Your task to perform on an android device: toggle javascript in the chrome app Image 0: 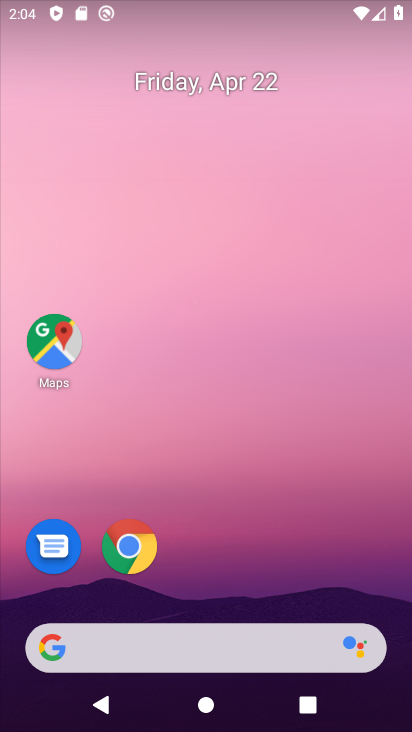
Step 0: click (299, 498)
Your task to perform on an android device: toggle javascript in the chrome app Image 1: 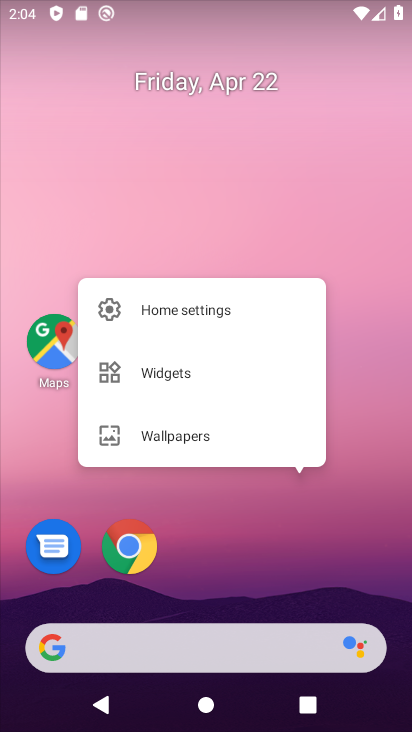
Step 1: click (371, 547)
Your task to perform on an android device: toggle javascript in the chrome app Image 2: 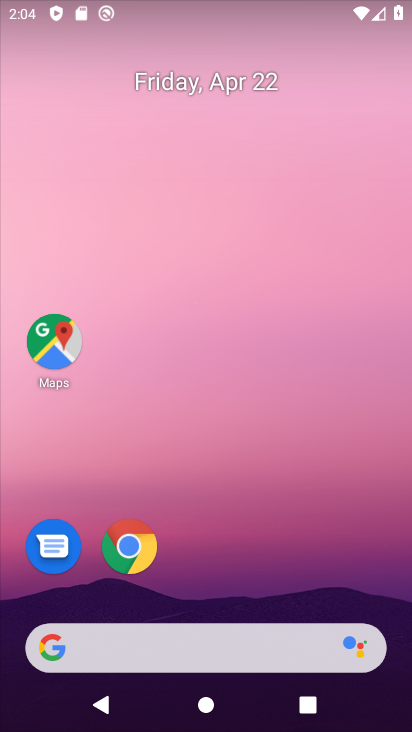
Step 2: drag from (218, 601) to (143, 86)
Your task to perform on an android device: toggle javascript in the chrome app Image 3: 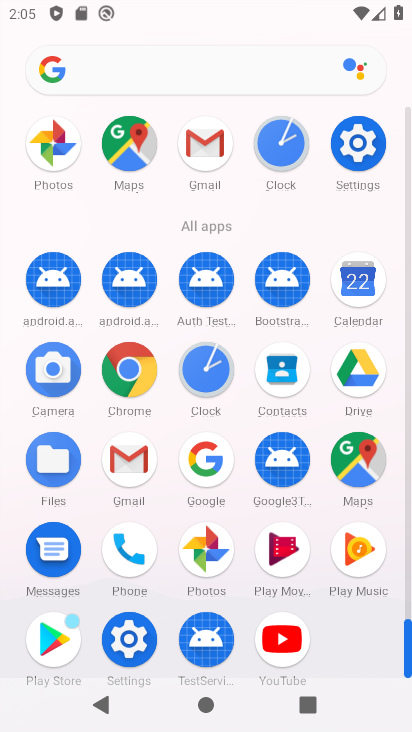
Step 3: click (121, 373)
Your task to perform on an android device: toggle javascript in the chrome app Image 4: 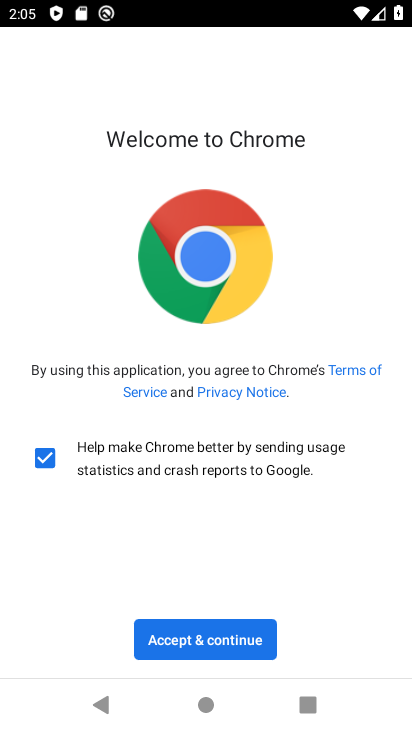
Step 4: click (214, 641)
Your task to perform on an android device: toggle javascript in the chrome app Image 5: 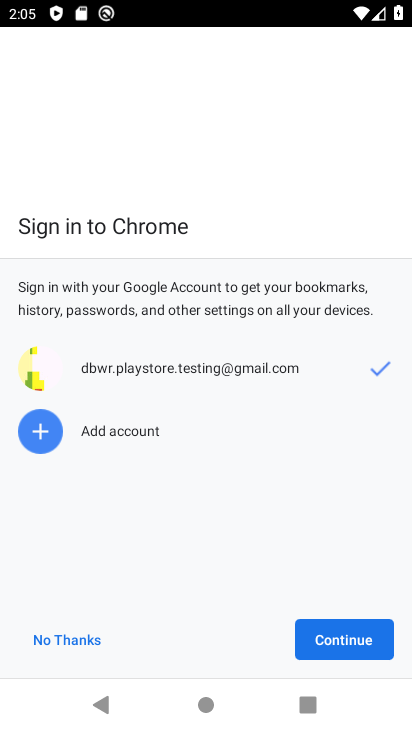
Step 5: click (347, 650)
Your task to perform on an android device: toggle javascript in the chrome app Image 6: 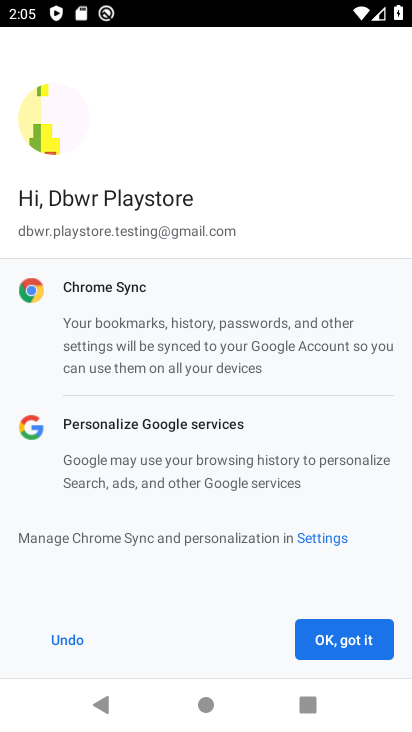
Step 6: click (347, 650)
Your task to perform on an android device: toggle javascript in the chrome app Image 7: 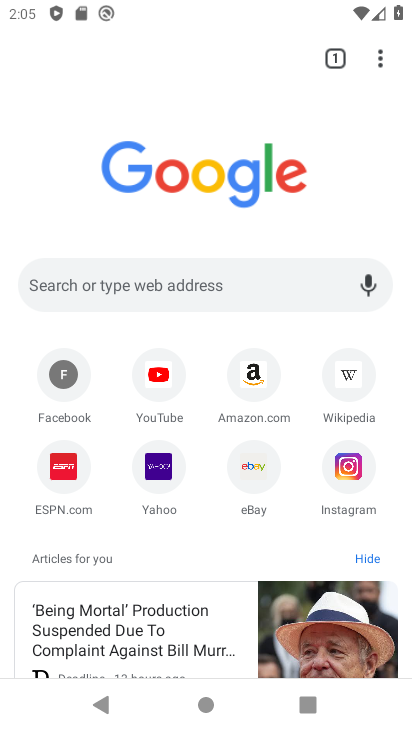
Step 7: click (377, 64)
Your task to perform on an android device: toggle javascript in the chrome app Image 8: 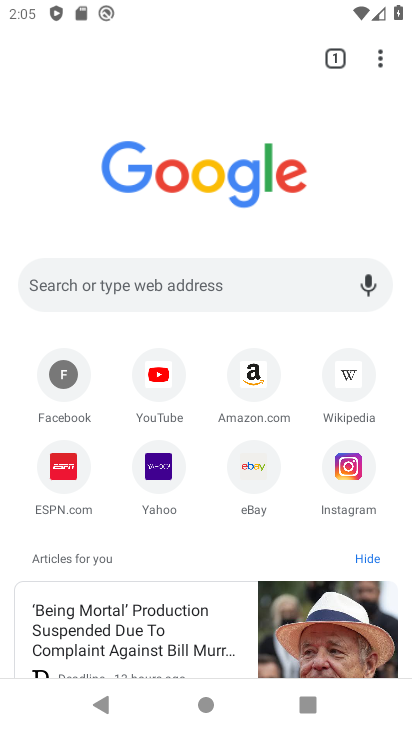
Step 8: click (378, 61)
Your task to perform on an android device: toggle javascript in the chrome app Image 9: 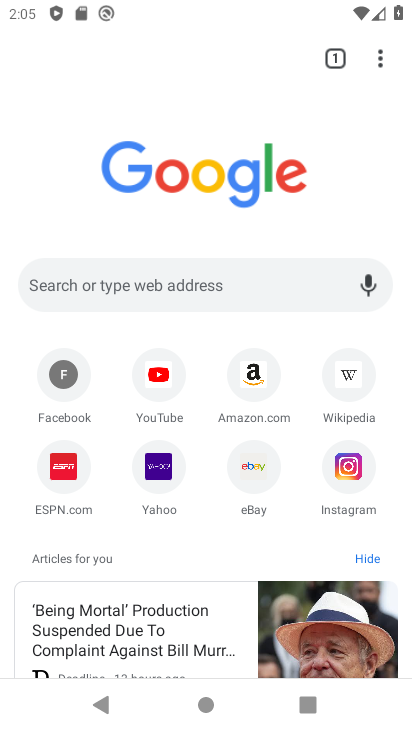
Step 9: drag from (380, 60) to (241, 332)
Your task to perform on an android device: toggle javascript in the chrome app Image 10: 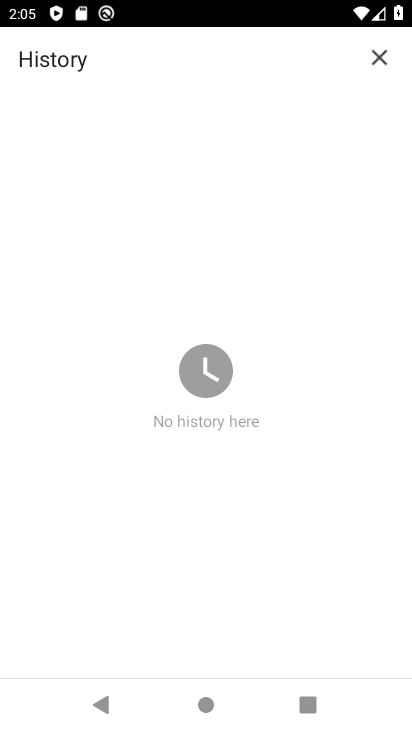
Step 10: click (380, 42)
Your task to perform on an android device: toggle javascript in the chrome app Image 11: 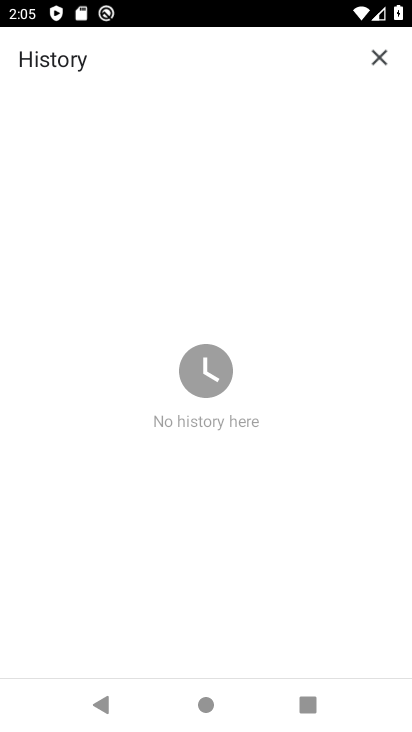
Step 11: click (381, 56)
Your task to perform on an android device: toggle javascript in the chrome app Image 12: 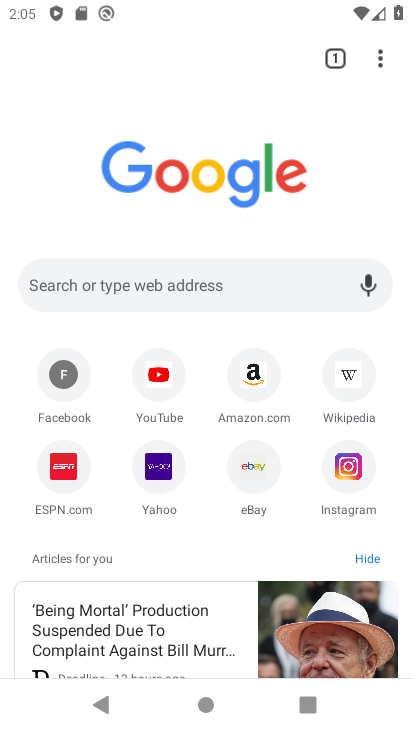
Step 12: click (378, 57)
Your task to perform on an android device: toggle javascript in the chrome app Image 13: 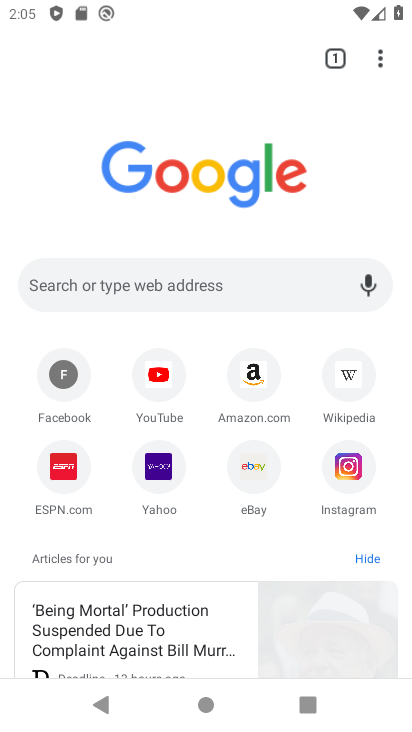
Step 13: drag from (378, 58) to (215, 504)
Your task to perform on an android device: toggle javascript in the chrome app Image 14: 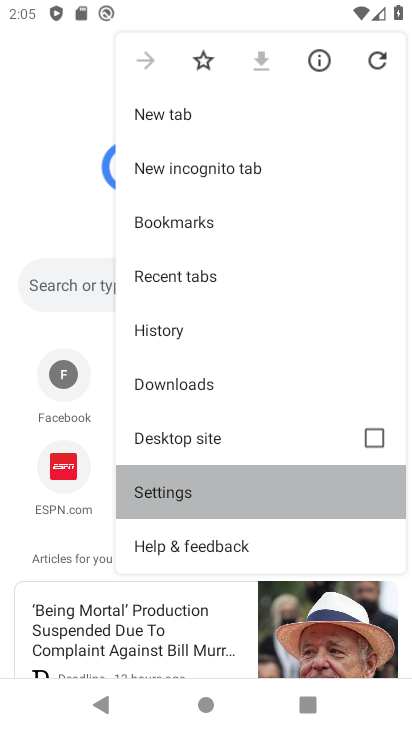
Step 14: click (215, 504)
Your task to perform on an android device: toggle javascript in the chrome app Image 15: 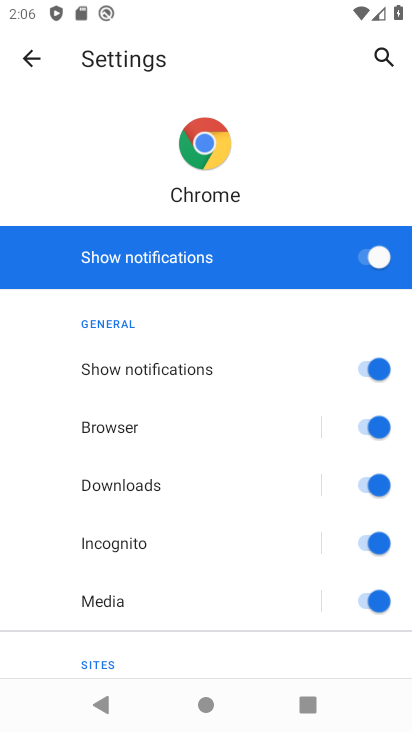
Step 15: click (24, 57)
Your task to perform on an android device: toggle javascript in the chrome app Image 16: 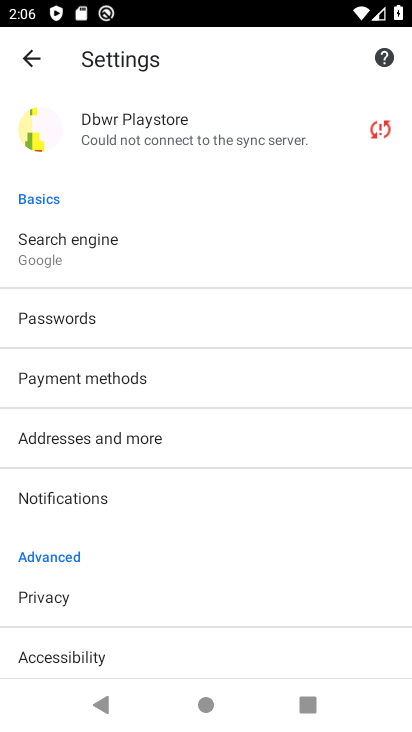
Step 16: drag from (156, 611) to (158, 386)
Your task to perform on an android device: toggle javascript in the chrome app Image 17: 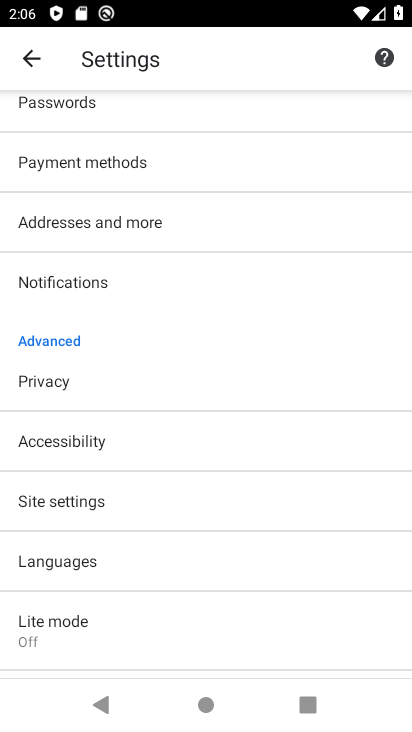
Step 17: drag from (121, 574) to (164, 311)
Your task to perform on an android device: toggle javascript in the chrome app Image 18: 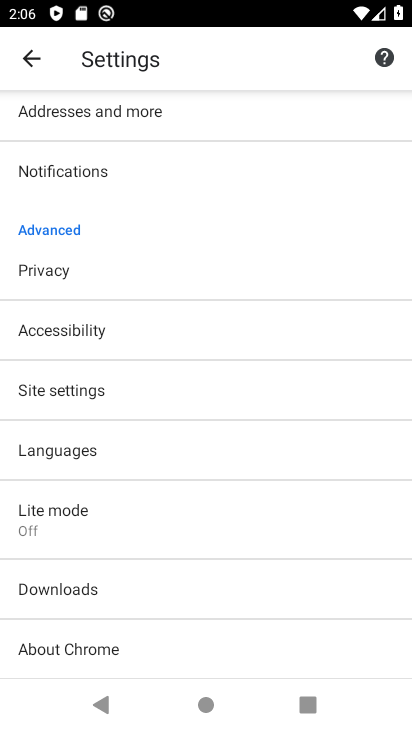
Step 18: drag from (112, 310) to (133, 576)
Your task to perform on an android device: toggle javascript in the chrome app Image 19: 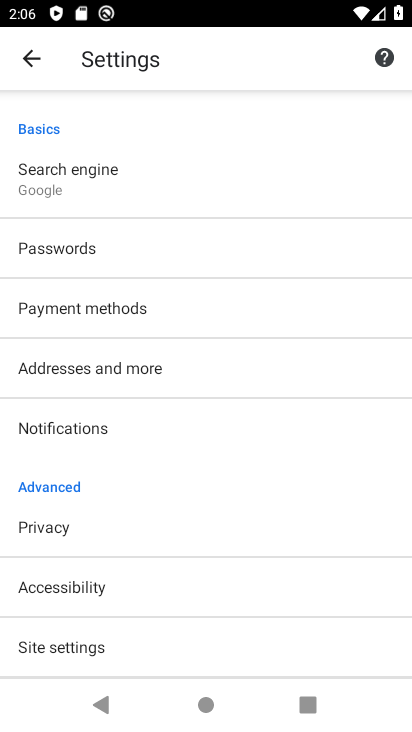
Step 19: drag from (137, 603) to (197, 284)
Your task to perform on an android device: toggle javascript in the chrome app Image 20: 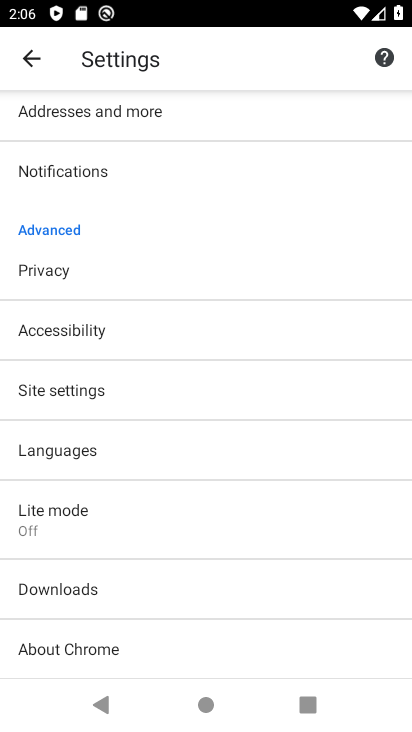
Step 20: drag from (180, 508) to (199, 311)
Your task to perform on an android device: toggle javascript in the chrome app Image 21: 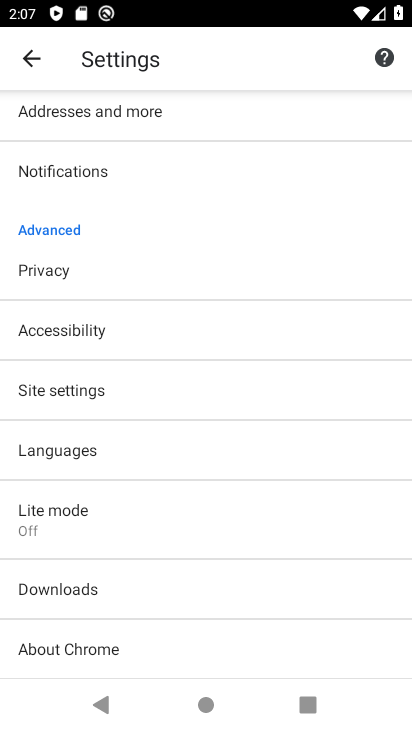
Step 21: drag from (97, 569) to (123, 172)
Your task to perform on an android device: toggle javascript in the chrome app Image 22: 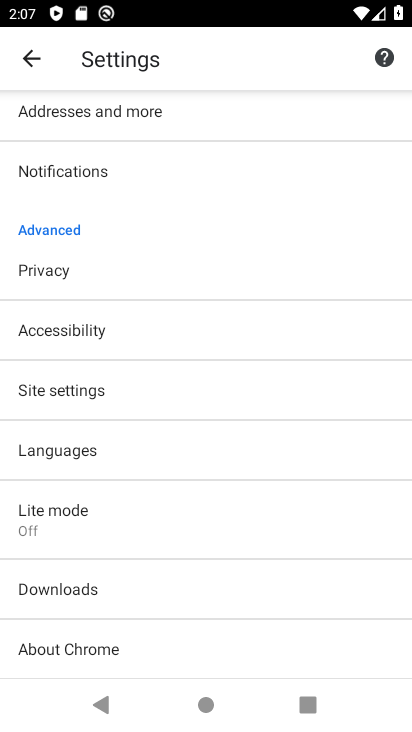
Step 22: click (59, 276)
Your task to perform on an android device: toggle javascript in the chrome app Image 23: 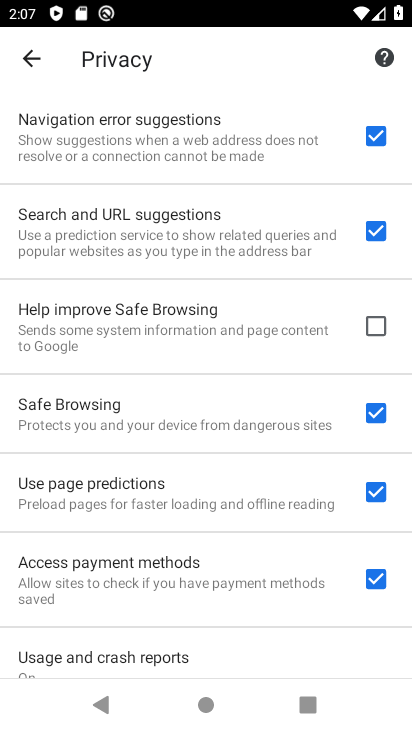
Step 23: drag from (120, 483) to (181, 205)
Your task to perform on an android device: toggle javascript in the chrome app Image 24: 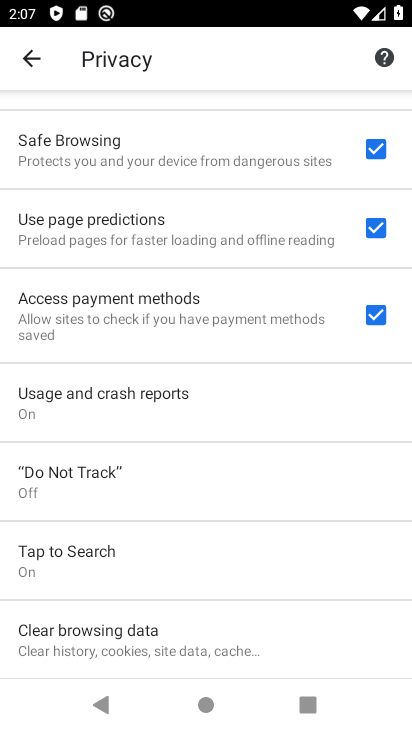
Step 24: drag from (161, 610) to (182, 153)
Your task to perform on an android device: toggle javascript in the chrome app Image 25: 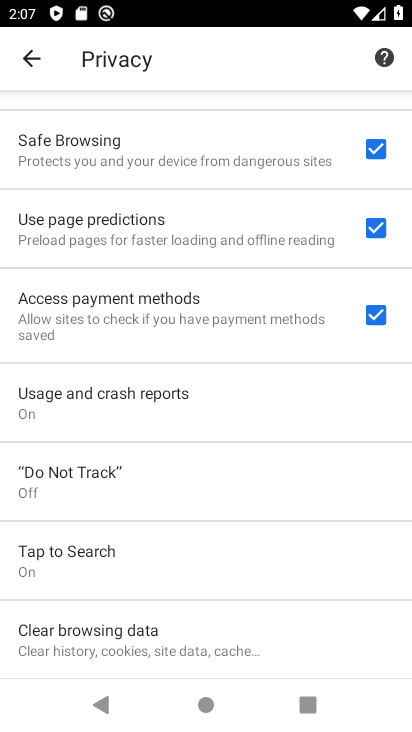
Step 25: click (182, 153)
Your task to perform on an android device: toggle javascript in the chrome app Image 26: 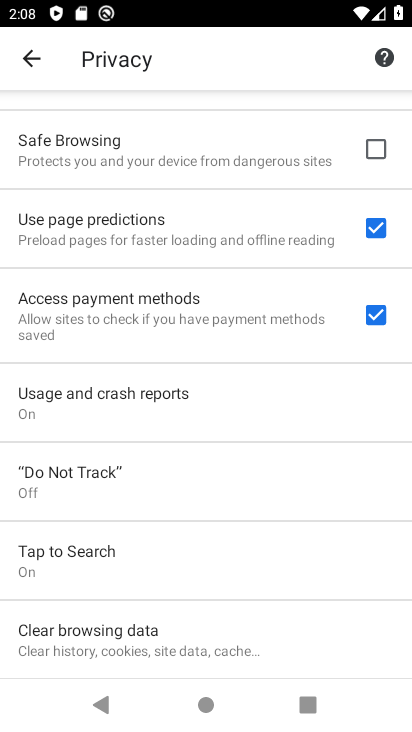
Step 26: drag from (172, 608) to (137, 308)
Your task to perform on an android device: toggle javascript in the chrome app Image 27: 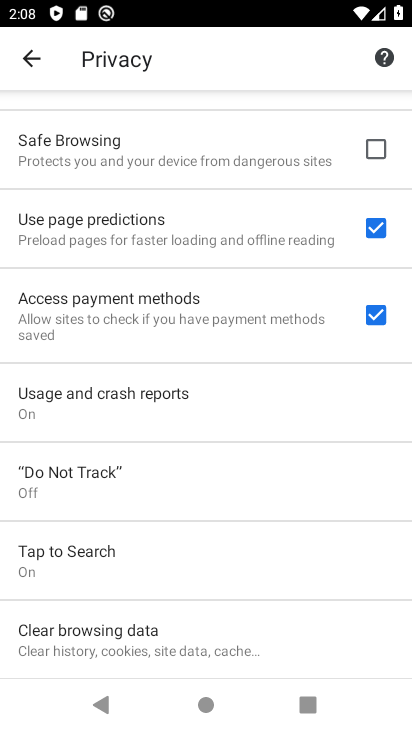
Step 27: click (24, 62)
Your task to perform on an android device: toggle javascript in the chrome app Image 28: 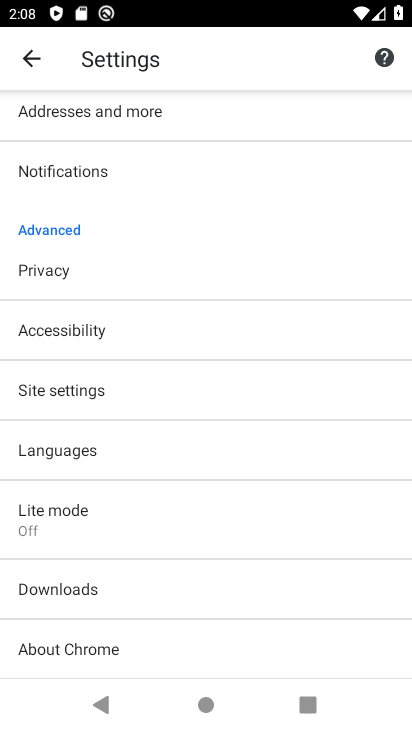
Step 28: task complete